Your task to perform on an android device: turn off location Image 0: 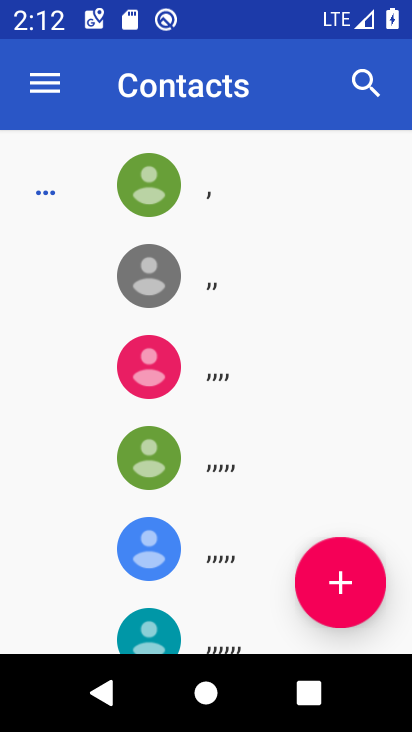
Step 0: press home button
Your task to perform on an android device: turn off location Image 1: 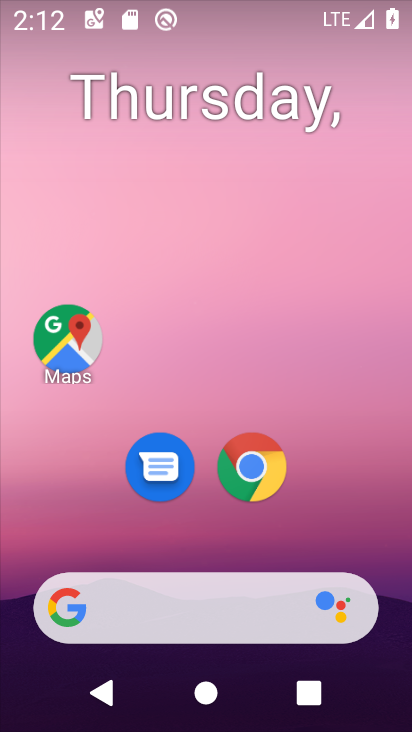
Step 1: drag from (228, 550) to (191, 5)
Your task to perform on an android device: turn off location Image 2: 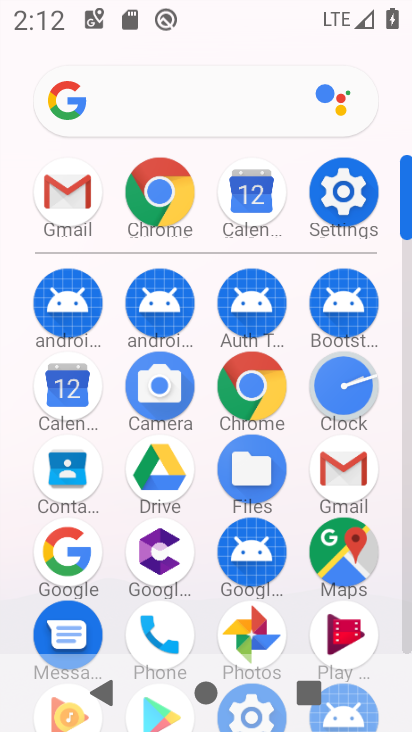
Step 2: click (343, 187)
Your task to perform on an android device: turn off location Image 3: 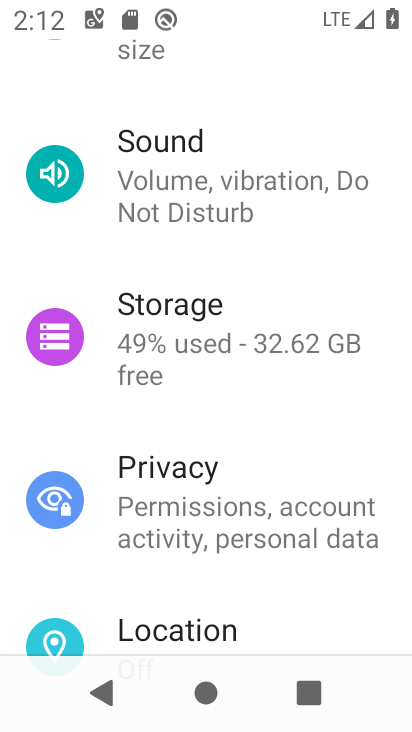
Step 3: click (228, 638)
Your task to perform on an android device: turn off location Image 4: 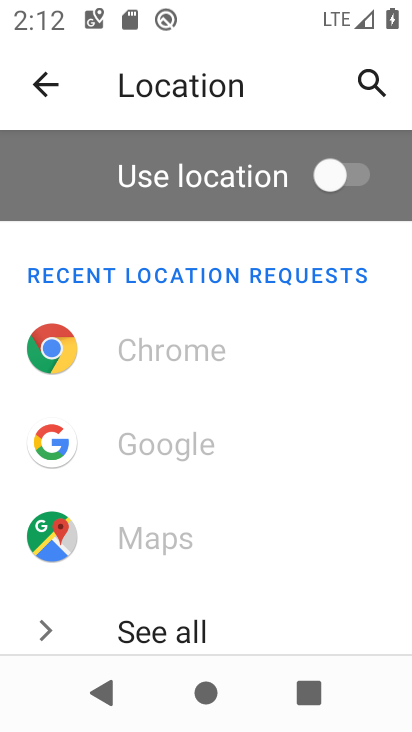
Step 4: task complete